Your task to perform on an android device: check data usage Image 0: 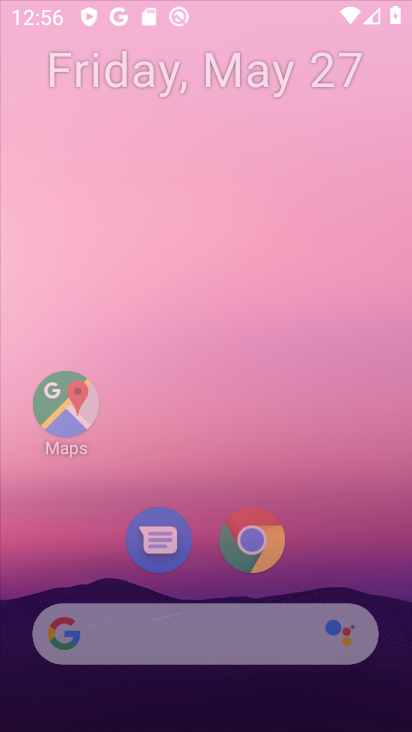
Step 0: drag from (188, 616) to (304, 4)
Your task to perform on an android device: check data usage Image 1: 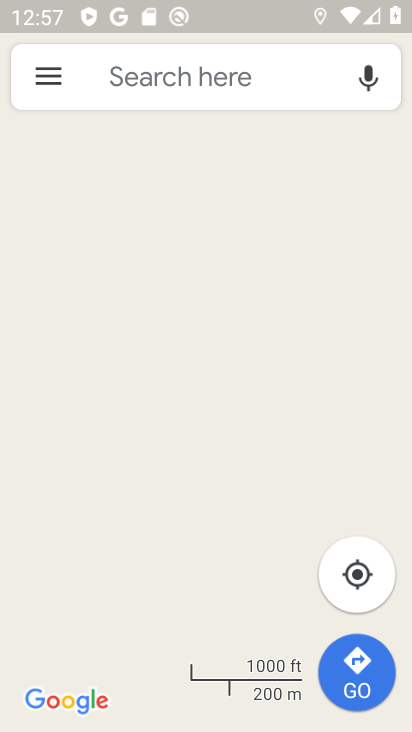
Step 1: press home button
Your task to perform on an android device: check data usage Image 2: 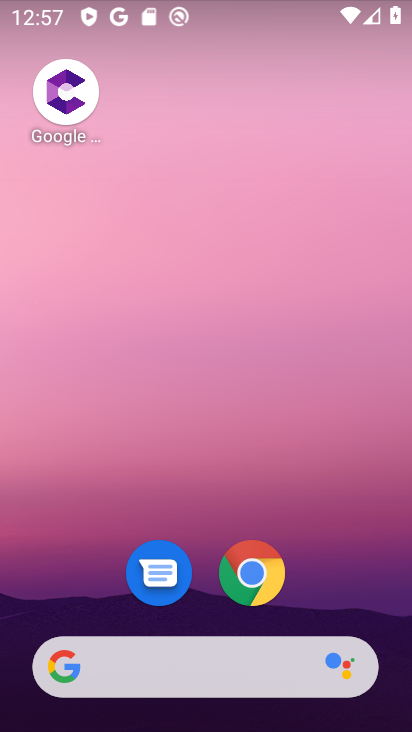
Step 2: drag from (212, 628) to (256, 31)
Your task to perform on an android device: check data usage Image 3: 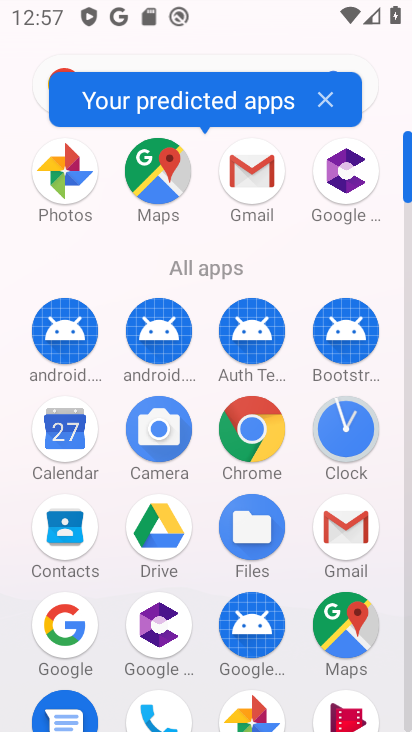
Step 3: drag from (208, 652) to (208, 44)
Your task to perform on an android device: check data usage Image 4: 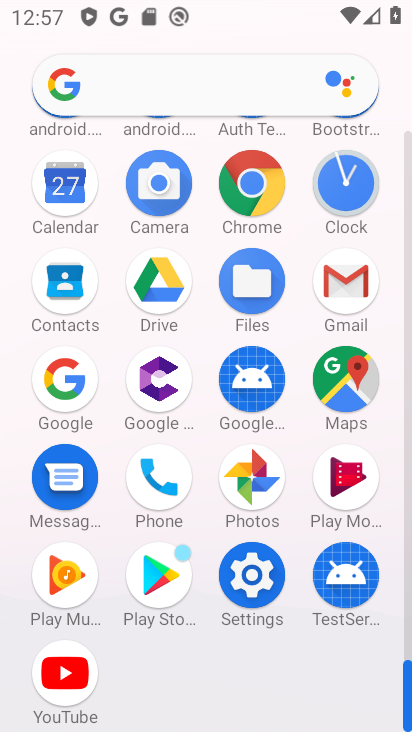
Step 4: click (260, 578)
Your task to perform on an android device: check data usage Image 5: 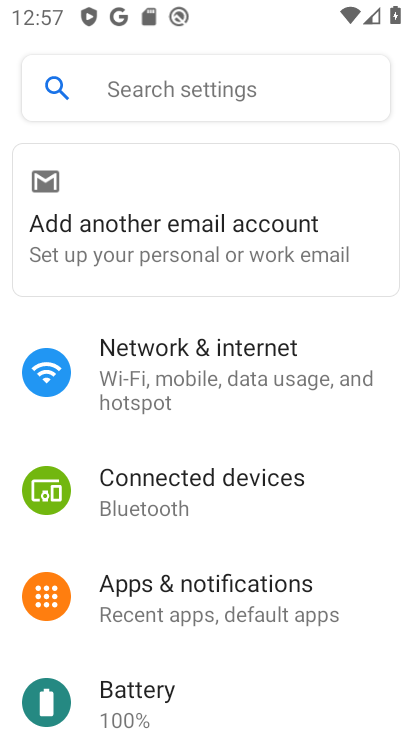
Step 5: click (170, 374)
Your task to perform on an android device: check data usage Image 6: 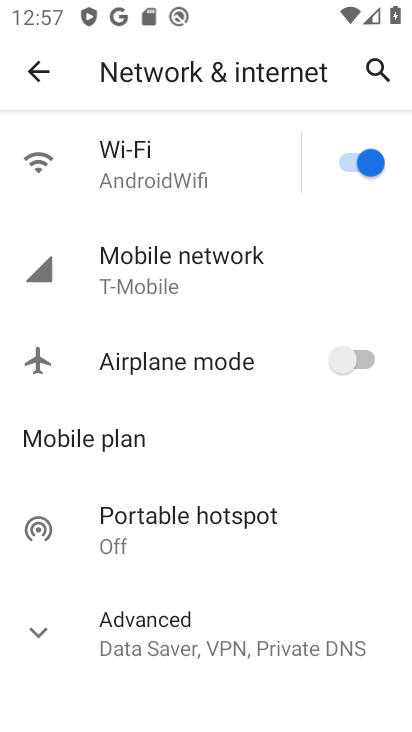
Step 6: click (159, 263)
Your task to perform on an android device: check data usage Image 7: 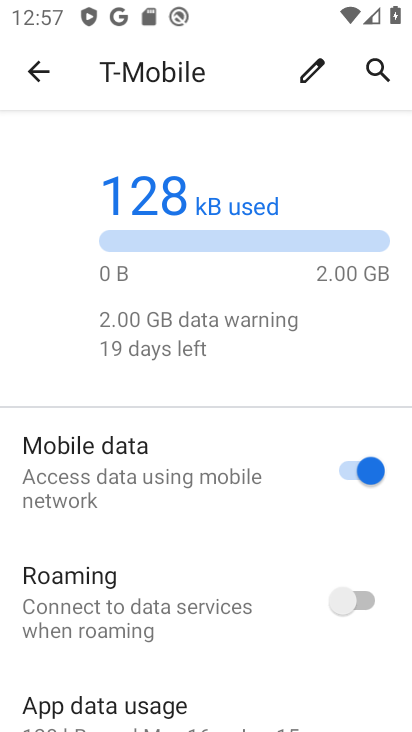
Step 7: task complete